Your task to perform on an android device: create a new album in the google photos Image 0: 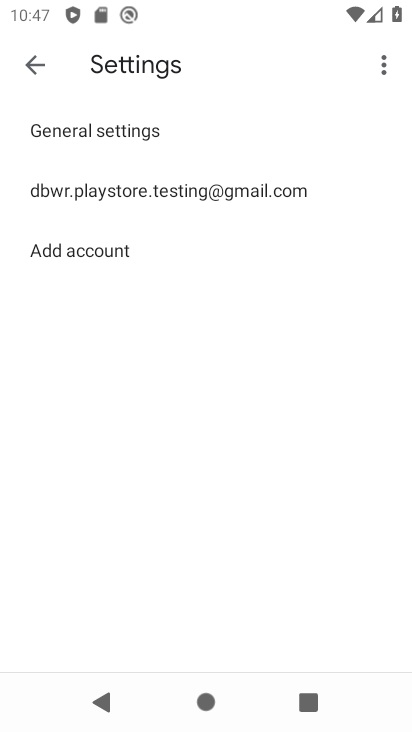
Step 0: press home button
Your task to perform on an android device: create a new album in the google photos Image 1: 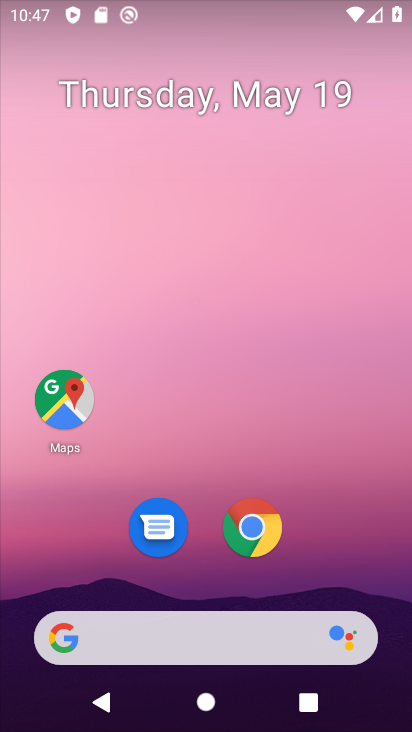
Step 1: drag from (213, 535) to (216, 44)
Your task to perform on an android device: create a new album in the google photos Image 2: 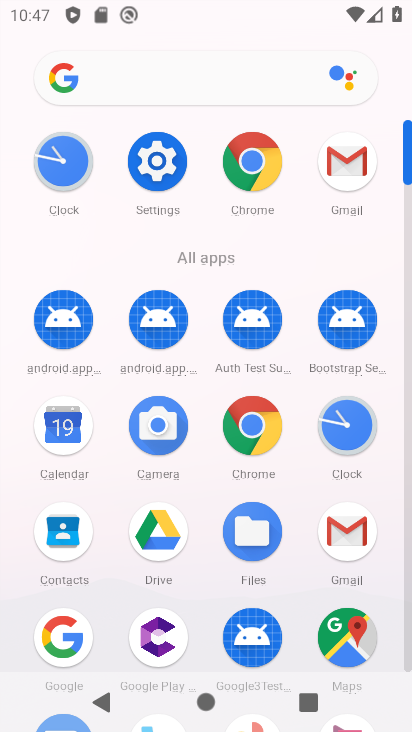
Step 2: drag from (195, 575) to (228, 244)
Your task to perform on an android device: create a new album in the google photos Image 3: 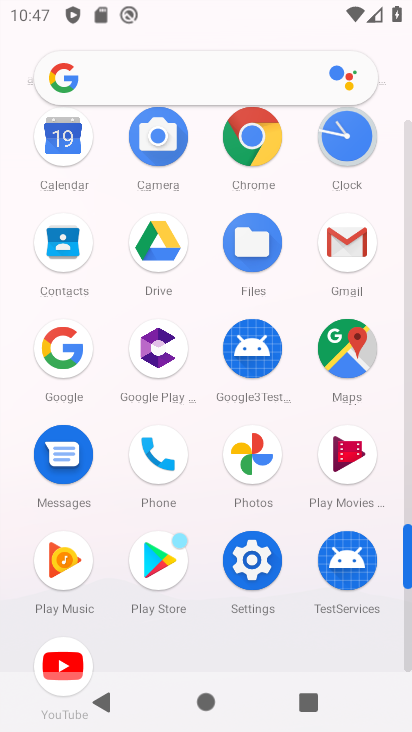
Step 3: click (266, 485)
Your task to perform on an android device: create a new album in the google photos Image 4: 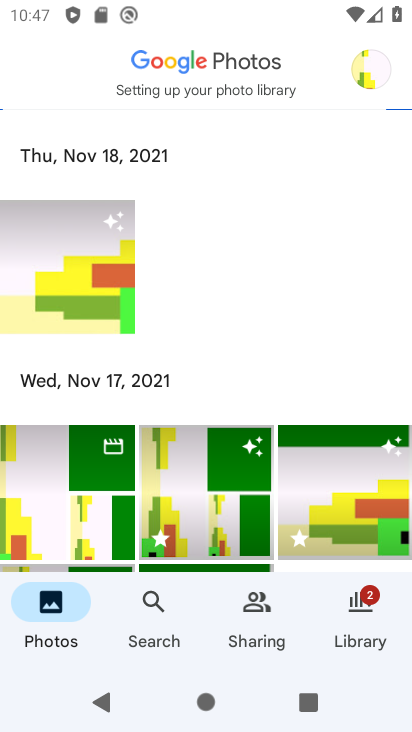
Step 4: click (370, 601)
Your task to perform on an android device: create a new album in the google photos Image 5: 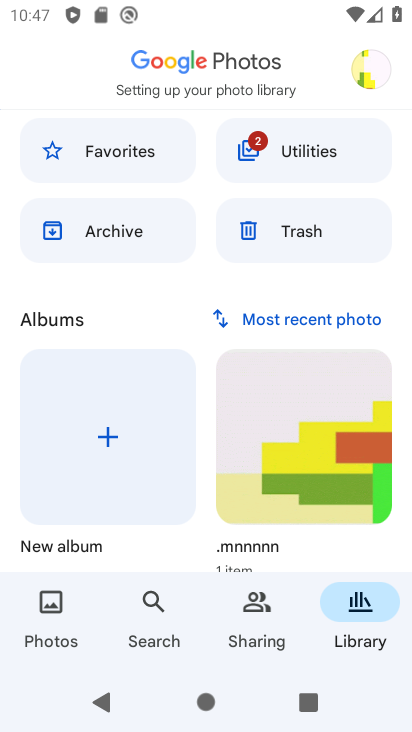
Step 5: click (107, 433)
Your task to perform on an android device: create a new album in the google photos Image 6: 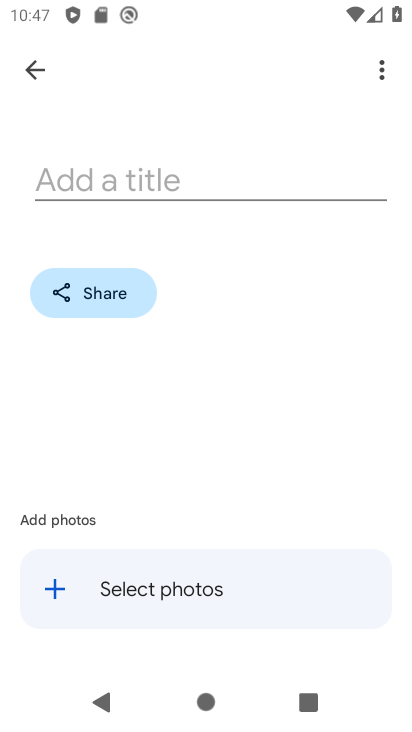
Step 6: click (166, 194)
Your task to perform on an android device: create a new album in the google photos Image 7: 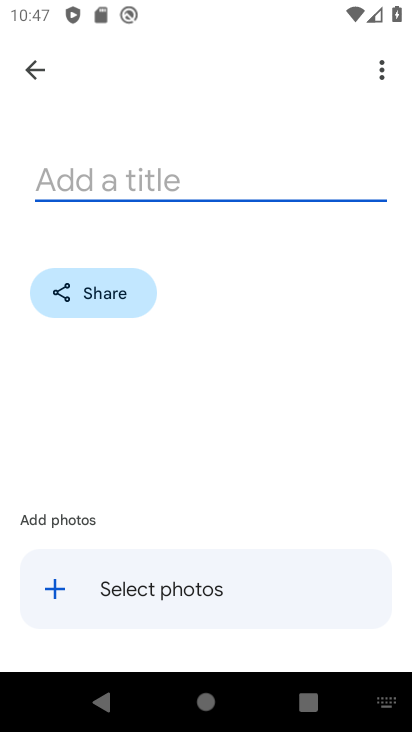
Step 7: type "flesp"
Your task to perform on an android device: create a new album in the google photos Image 8: 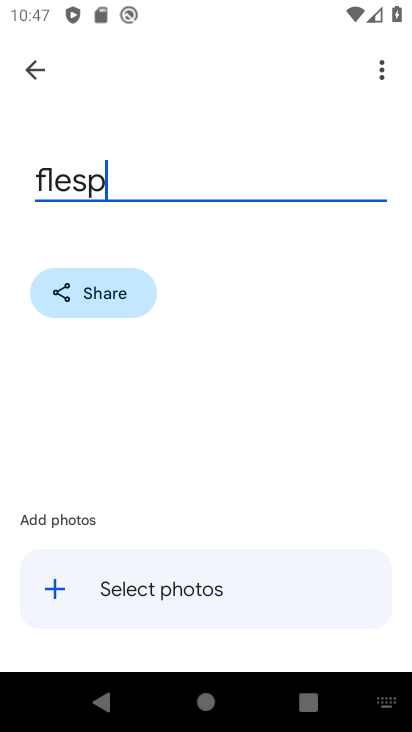
Step 8: click (50, 591)
Your task to perform on an android device: create a new album in the google photos Image 9: 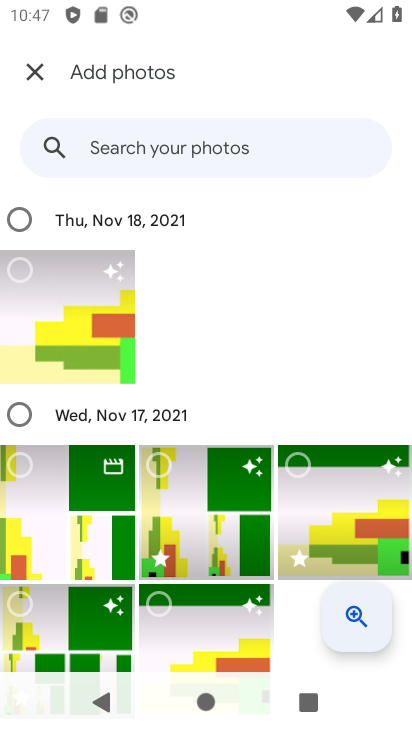
Step 9: click (88, 323)
Your task to perform on an android device: create a new album in the google photos Image 10: 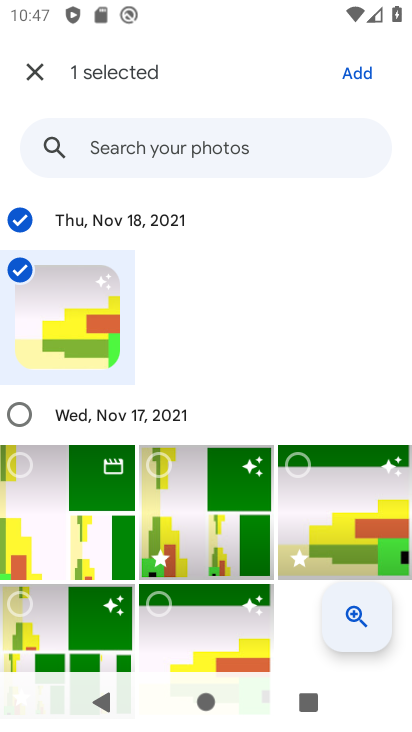
Step 10: click (364, 483)
Your task to perform on an android device: create a new album in the google photos Image 11: 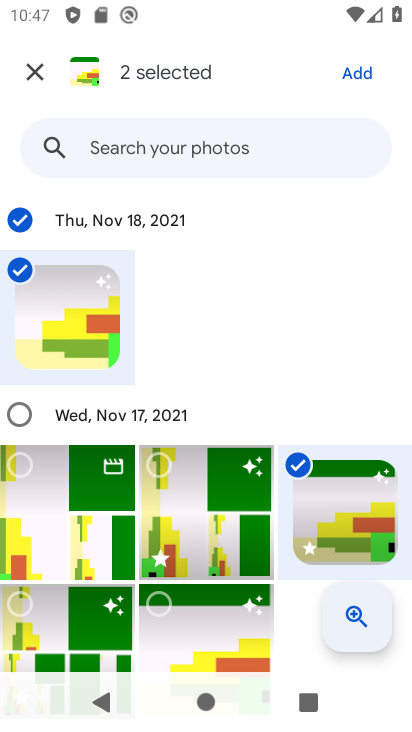
Step 11: click (181, 651)
Your task to perform on an android device: create a new album in the google photos Image 12: 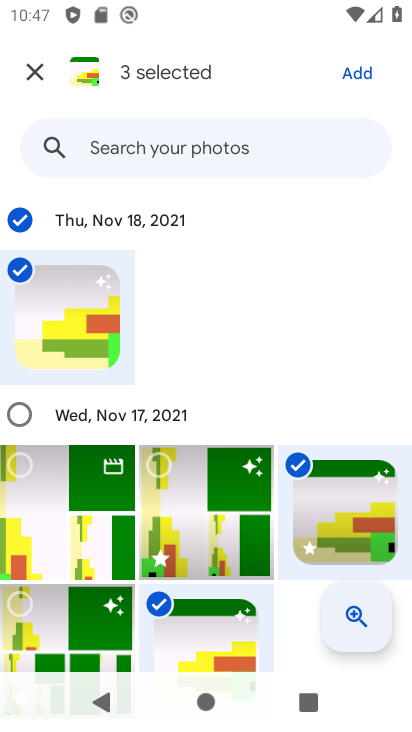
Step 12: click (360, 80)
Your task to perform on an android device: create a new album in the google photos Image 13: 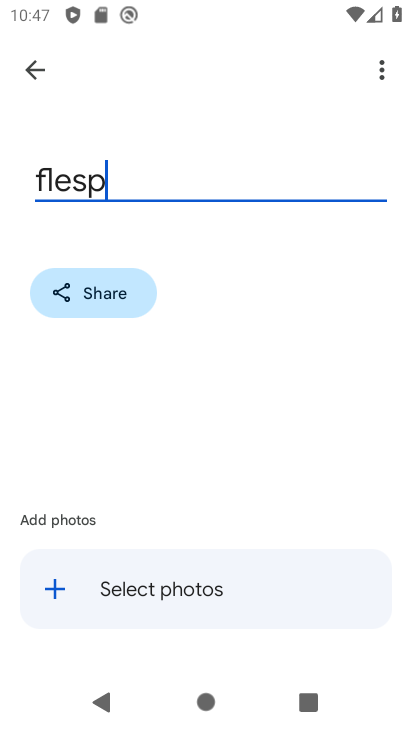
Step 13: click (55, 584)
Your task to perform on an android device: create a new album in the google photos Image 14: 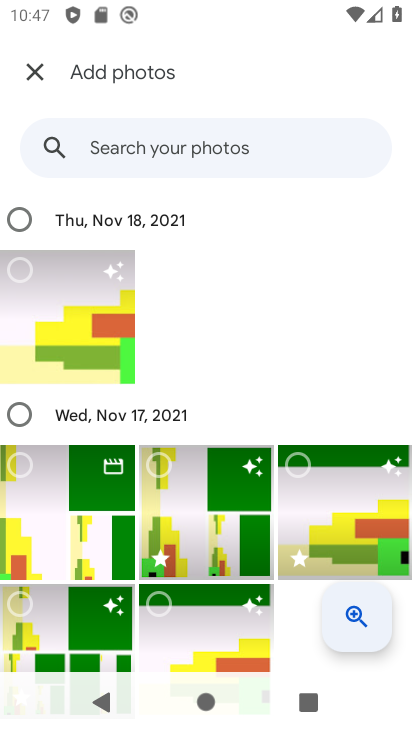
Step 14: click (99, 328)
Your task to perform on an android device: create a new album in the google photos Image 15: 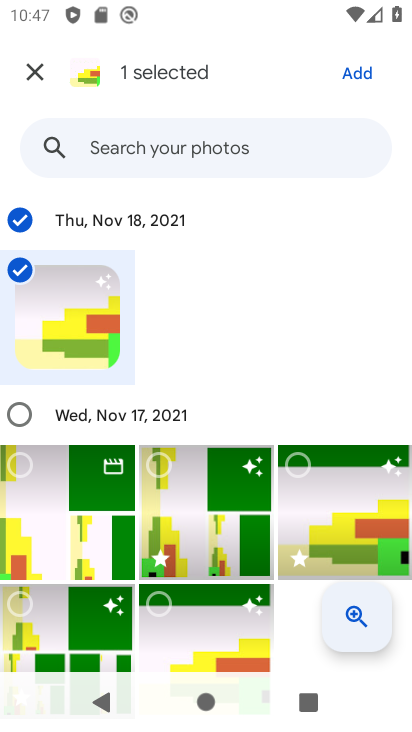
Step 15: click (184, 529)
Your task to perform on an android device: create a new album in the google photos Image 16: 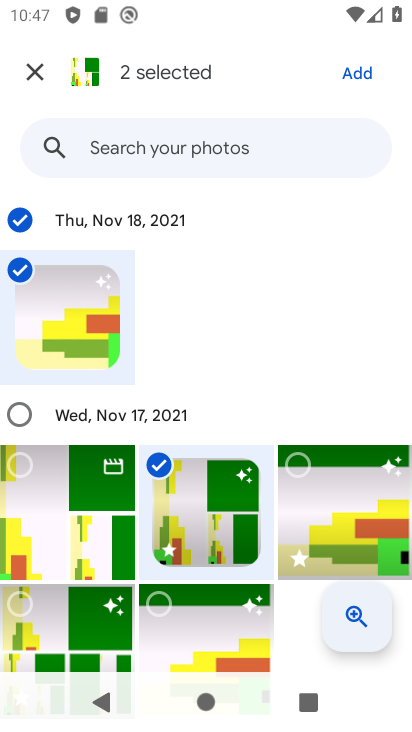
Step 16: click (171, 626)
Your task to perform on an android device: create a new album in the google photos Image 17: 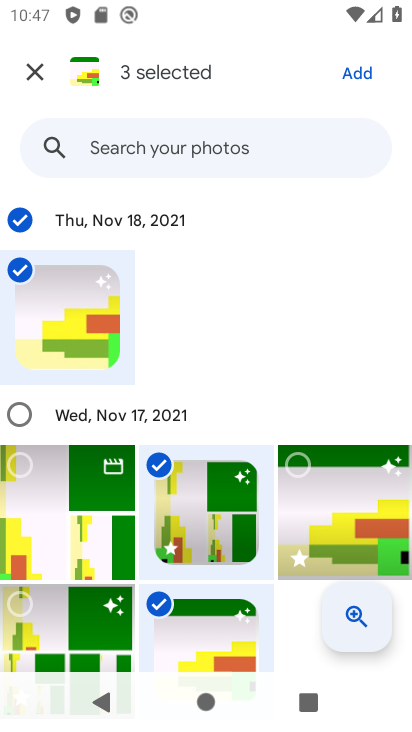
Step 17: click (17, 630)
Your task to perform on an android device: create a new album in the google photos Image 18: 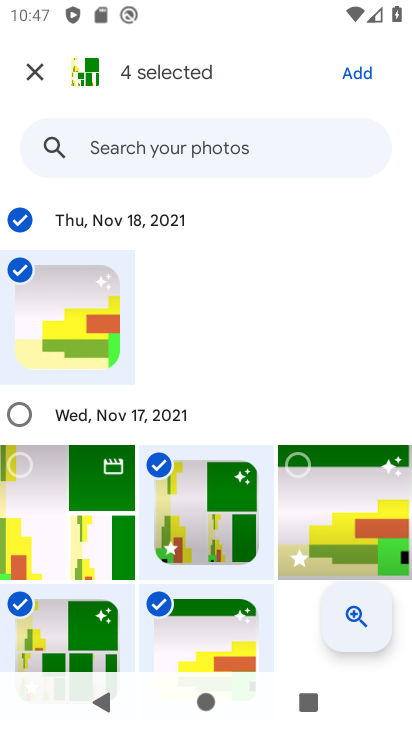
Step 18: click (367, 72)
Your task to perform on an android device: create a new album in the google photos Image 19: 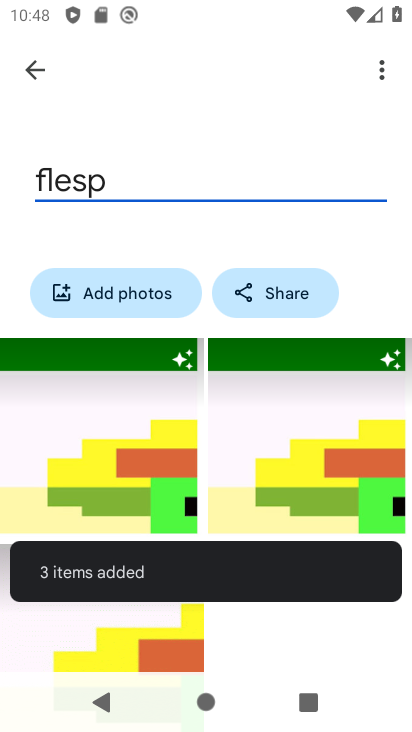
Step 19: click (378, 69)
Your task to perform on an android device: create a new album in the google photos Image 20: 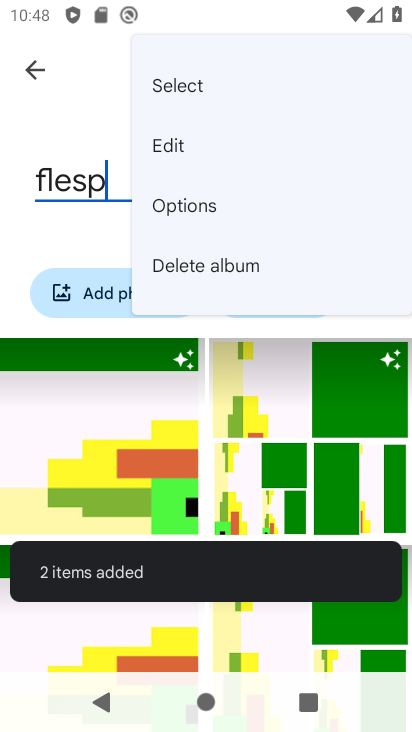
Step 20: click (184, 146)
Your task to perform on an android device: create a new album in the google photos Image 21: 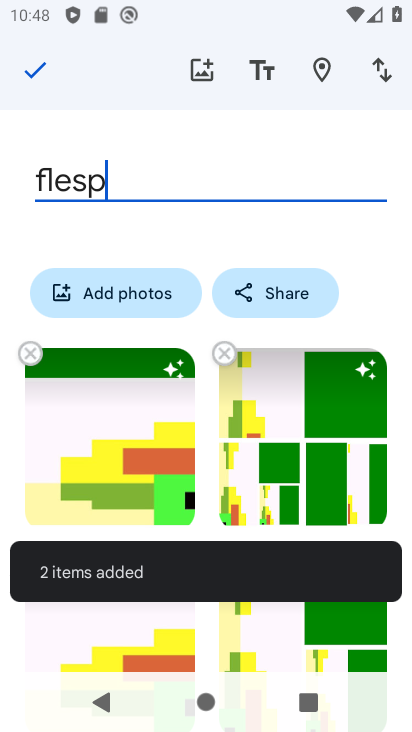
Step 21: click (42, 70)
Your task to perform on an android device: create a new album in the google photos Image 22: 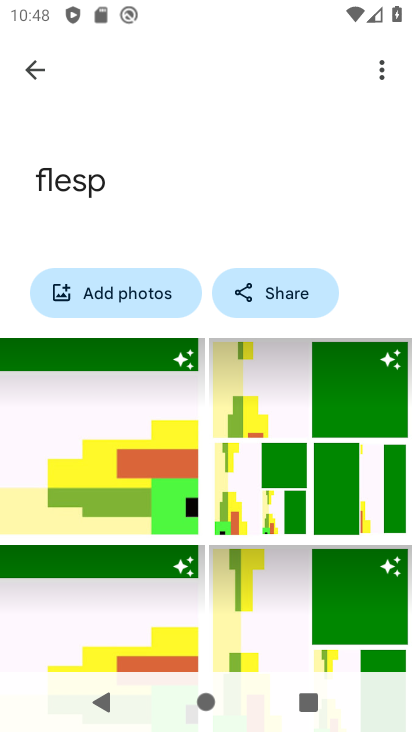
Step 22: task complete